Your task to perform on an android device: uninstall "LinkedIn" Image 0: 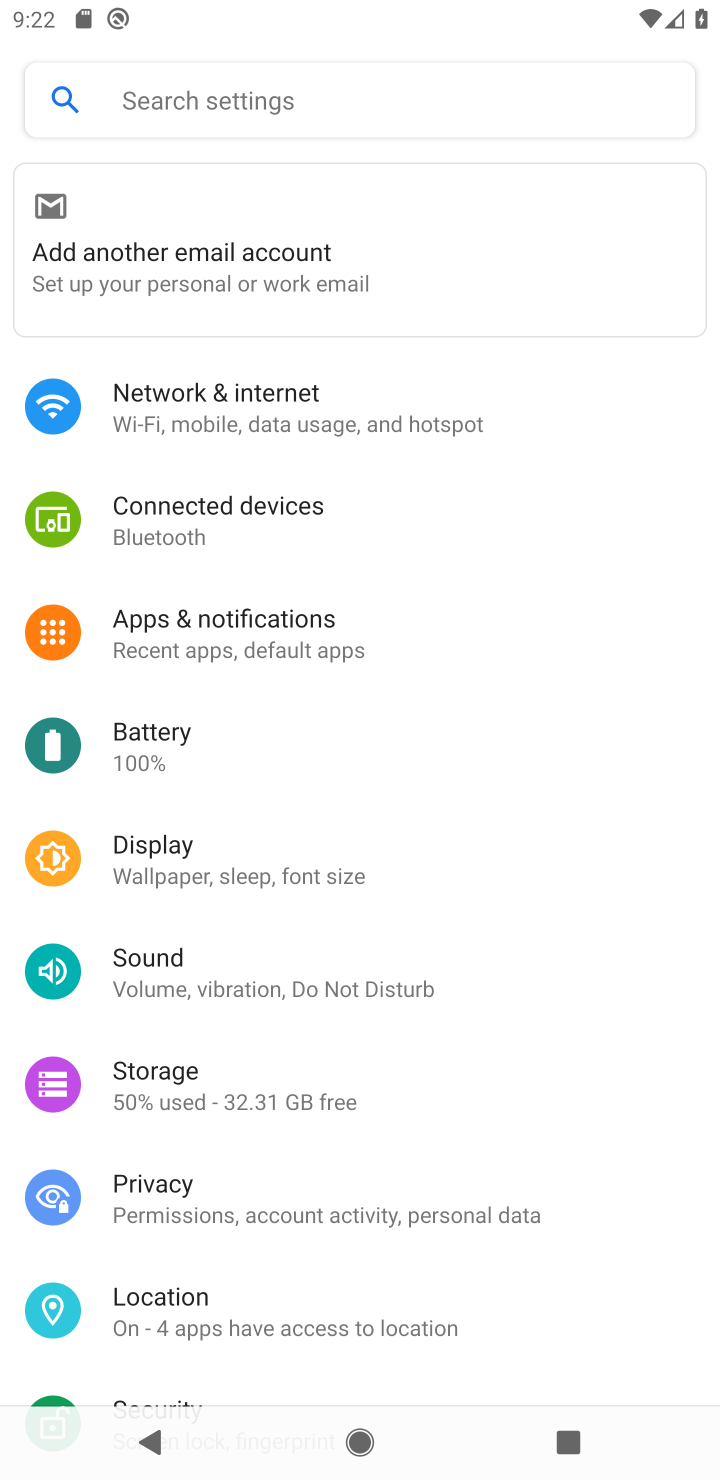
Step 0: press home button
Your task to perform on an android device: uninstall "LinkedIn" Image 1: 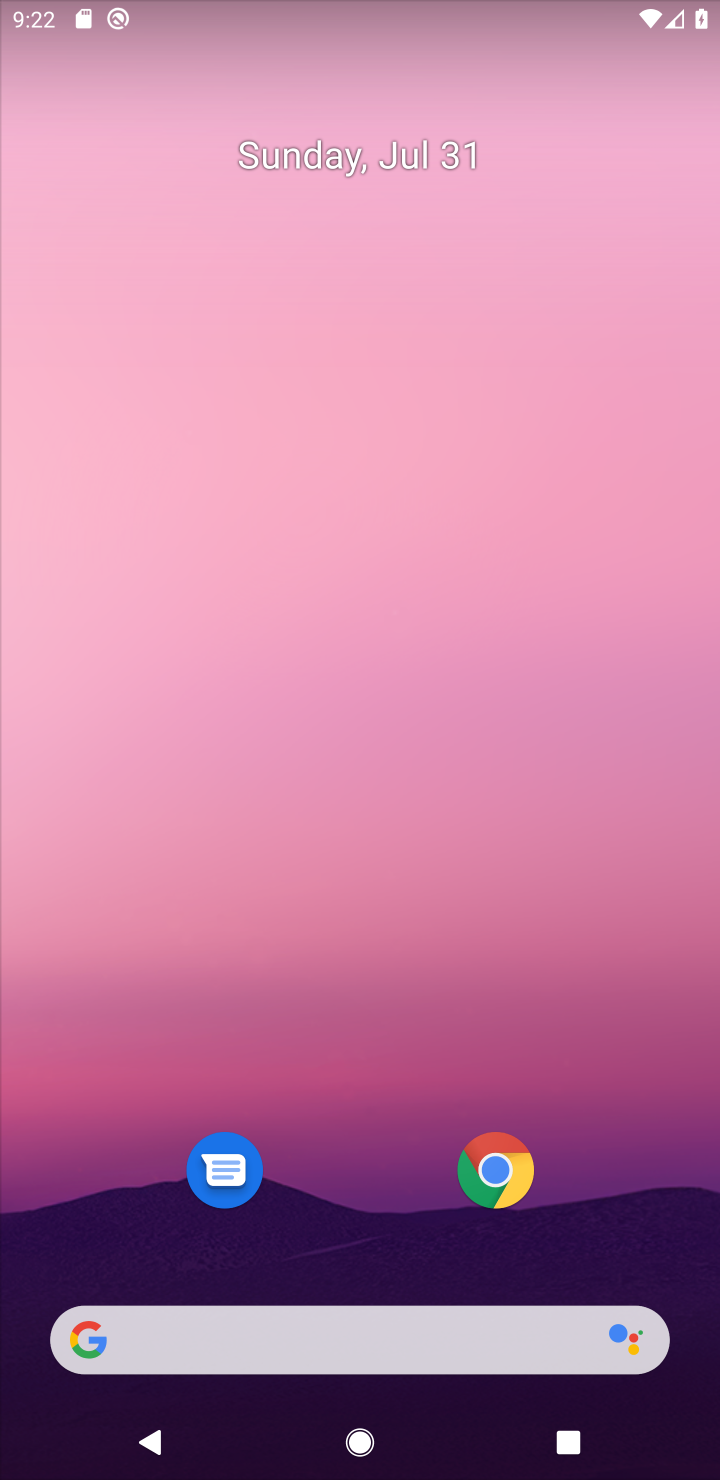
Step 1: drag from (644, 1132) to (287, 74)
Your task to perform on an android device: uninstall "LinkedIn" Image 2: 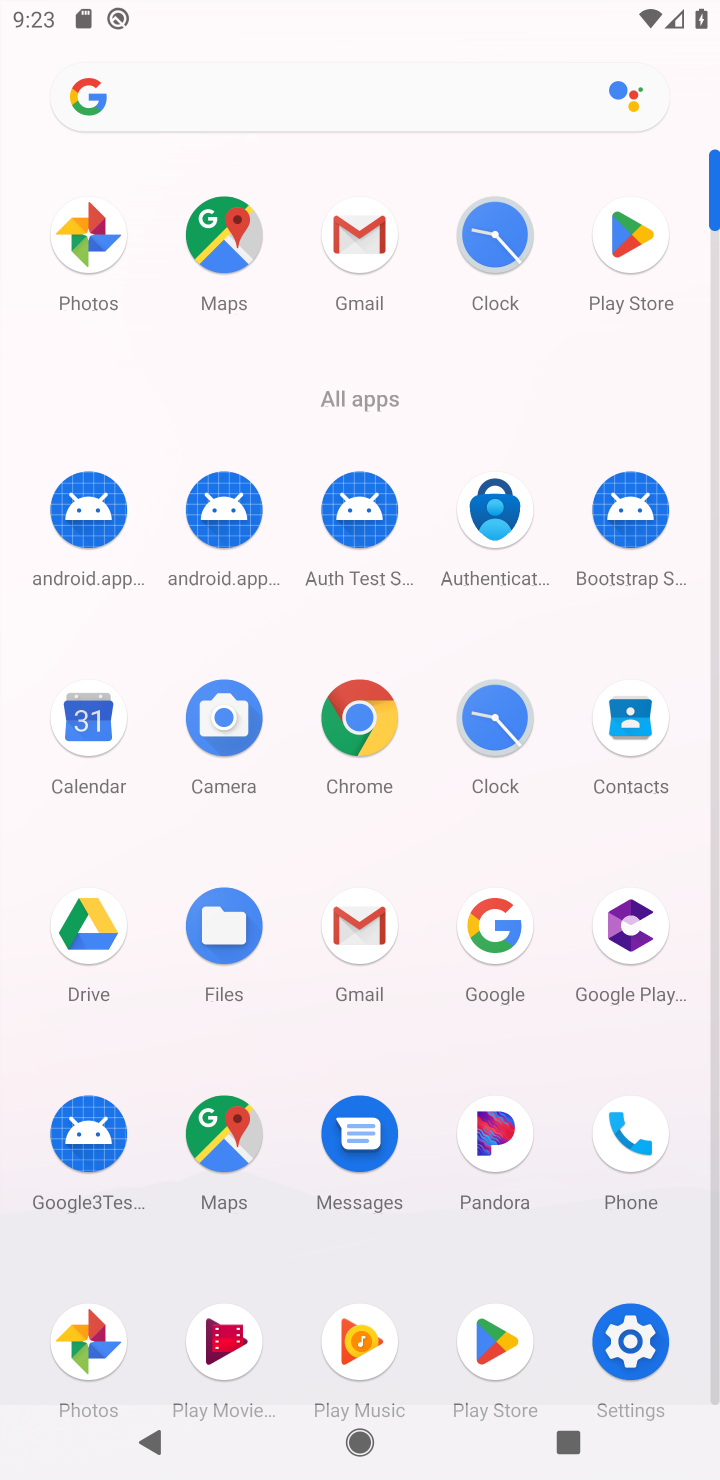
Step 2: click (624, 228)
Your task to perform on an android device: uninstall "LinkedIn" Image 3: 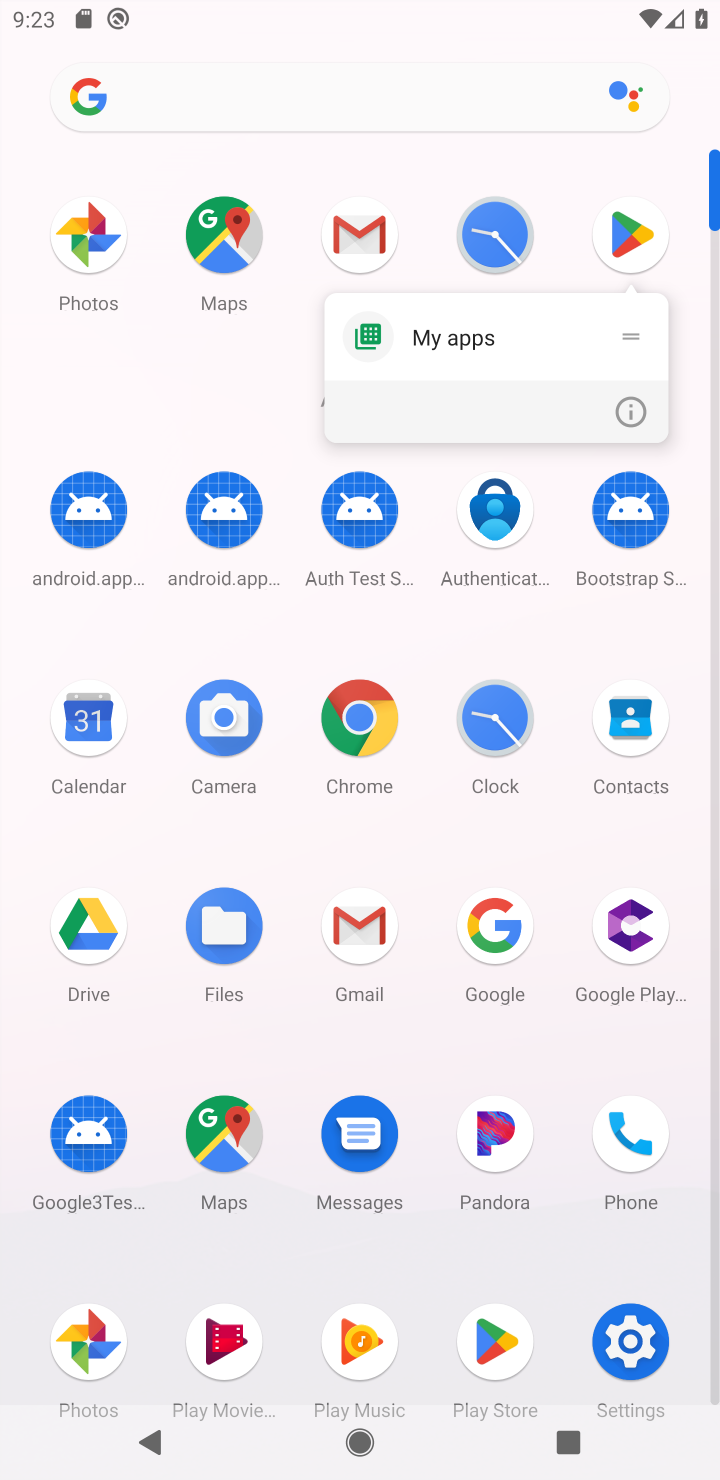
Step 3: click (645, 243)
Your task to perform on an android device: uninstall "LinkedIn" Image 4: 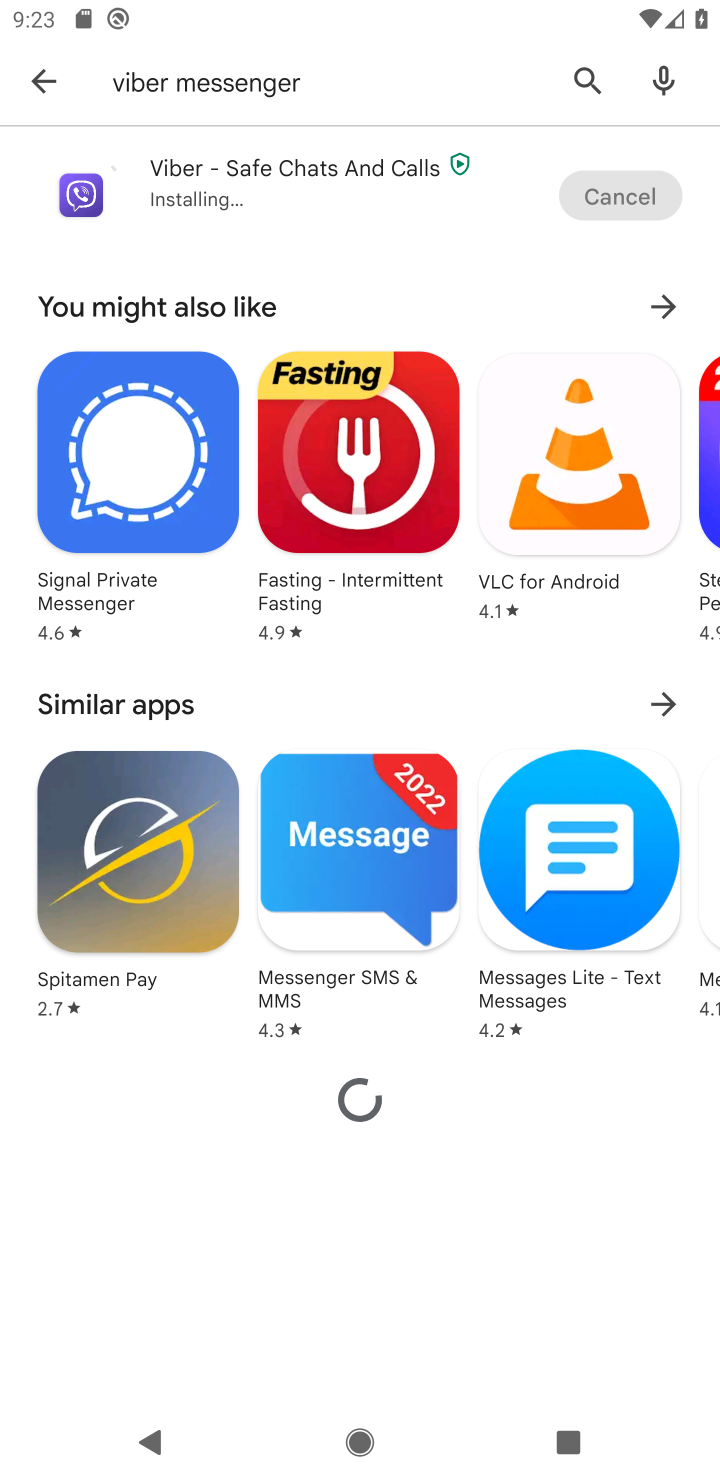
Step 4: press back button
Your task to perform on an android device: uninstall "LinkedIn" Image 5: 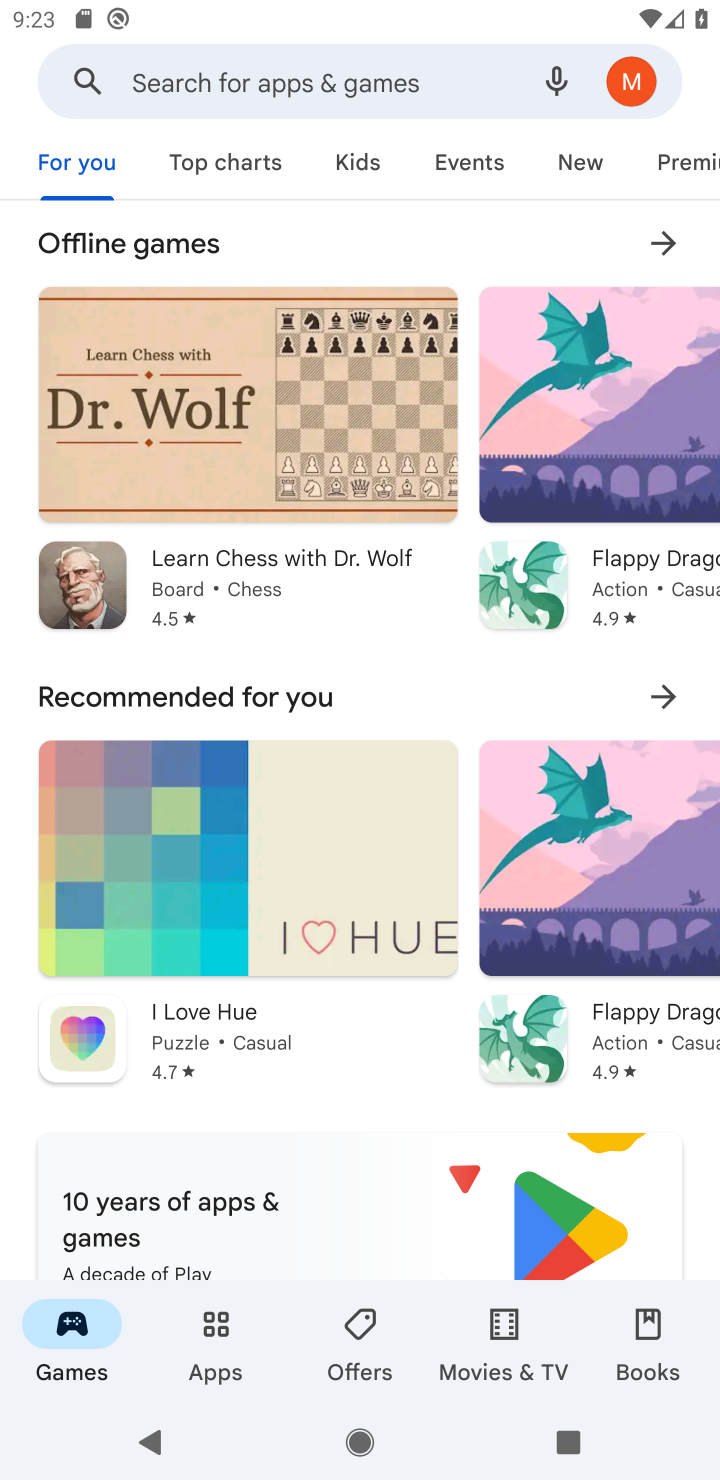
Step 5: click (205, 82)
Your task to perform on an android device: uninstall "LinkedIn" Image 6: 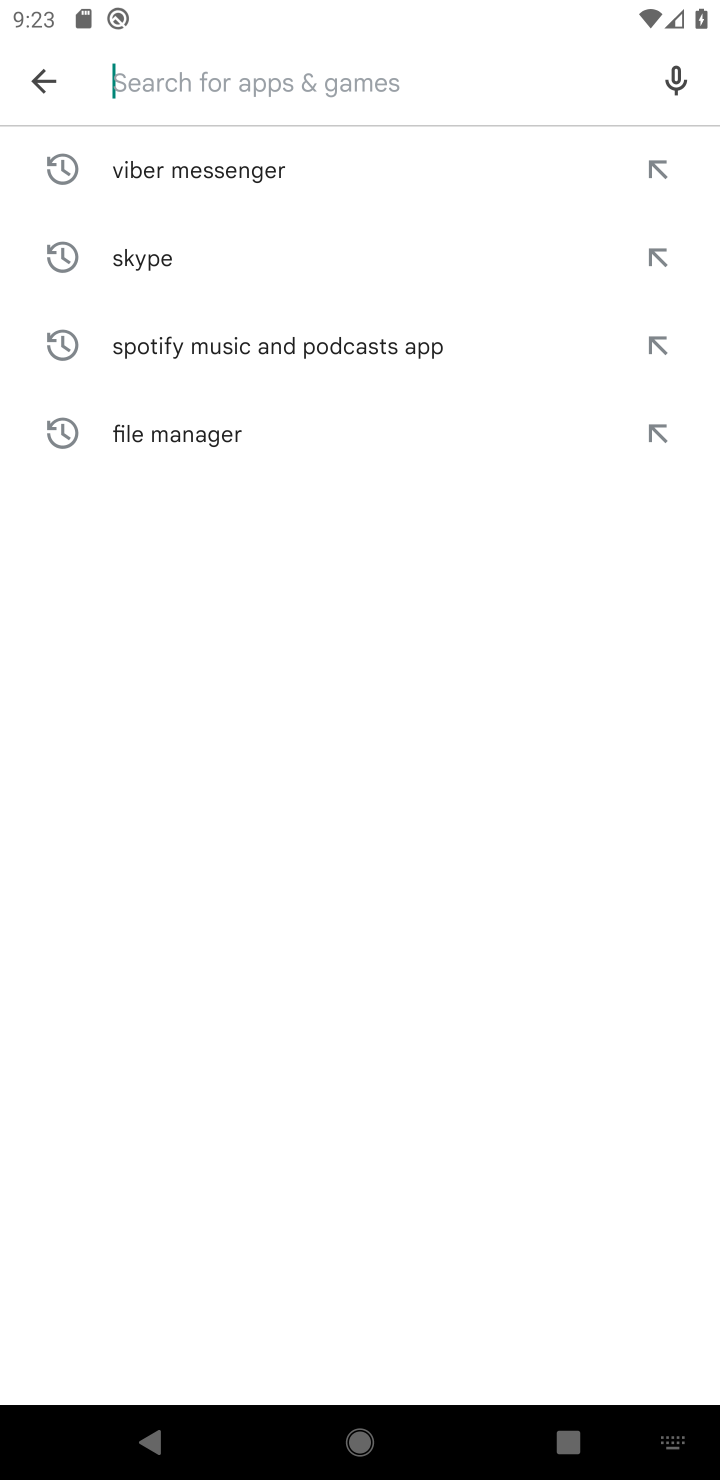
Step 6: type "LinkedIn"
Your task to perform on an android device: uninstall "LinkedIn" Image 7: 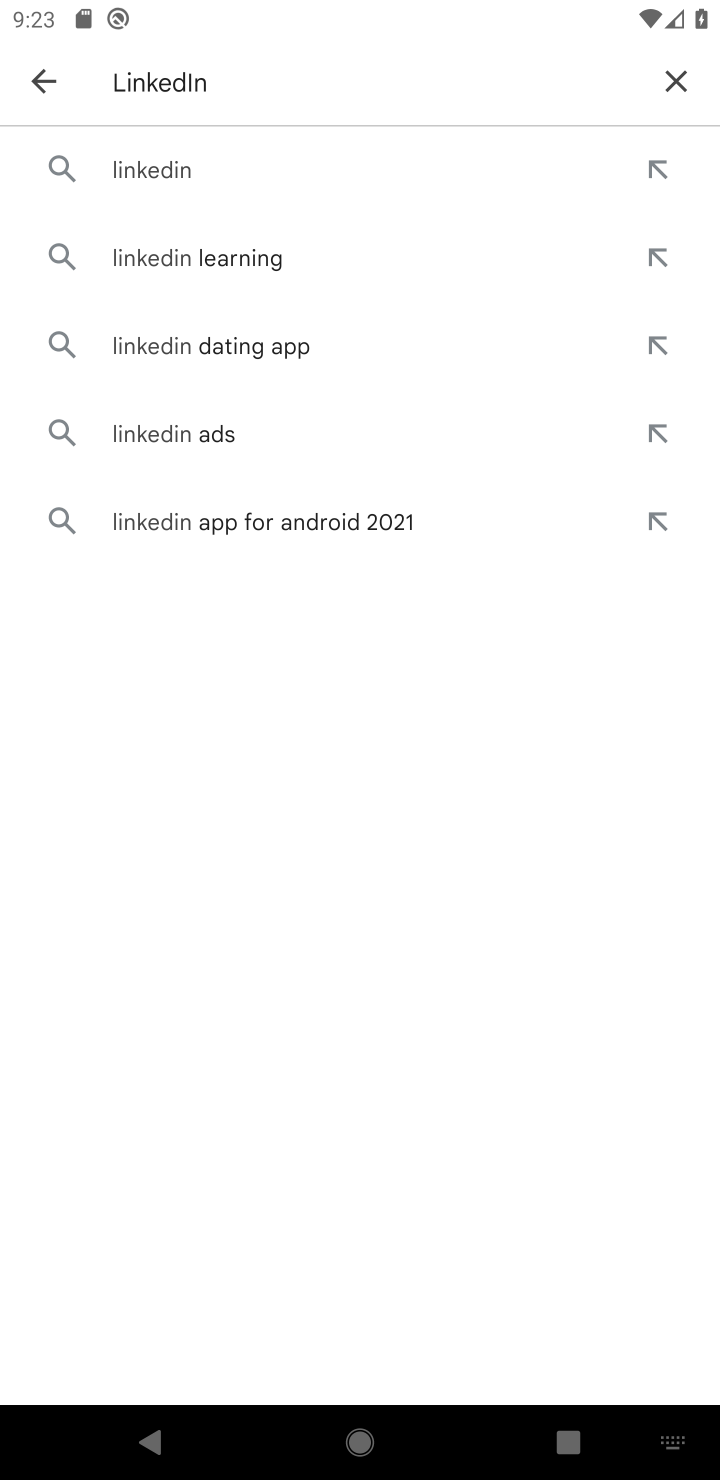
Step 7: click (172, 163)
Your task to perform on an android device: uninstall "LinkedIn" Image 8: 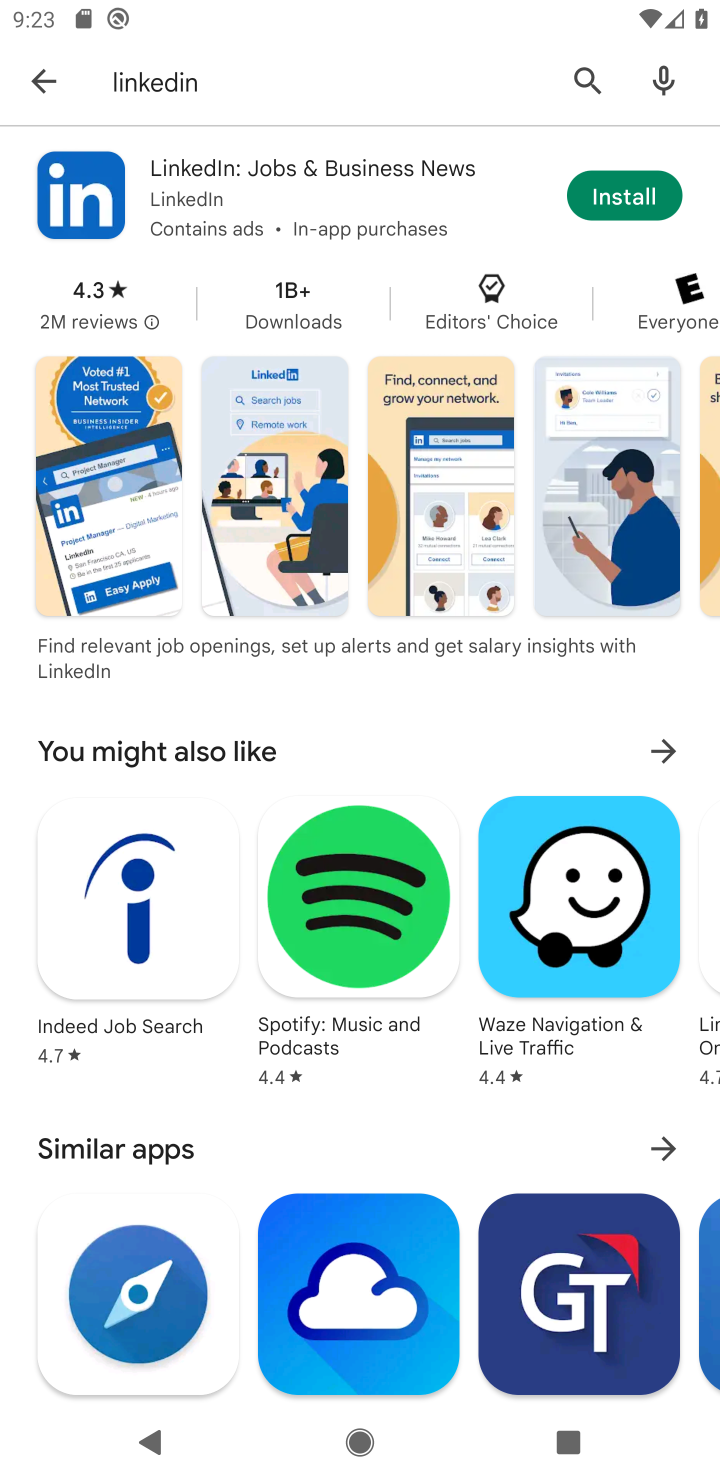
Step 8: task complete